Your task to perform on an android device: open app "Booking.com: Hotels and more" Image 0: 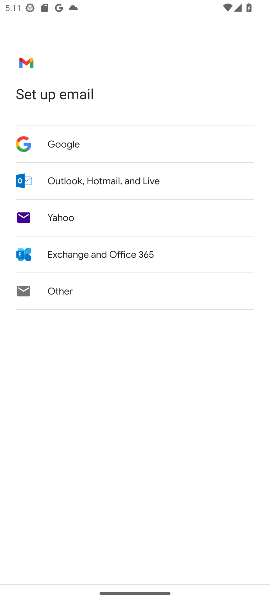
Step 0: press home button
Your task to perform on an android device: open app "Booking.com: Hotels and more" Image 1: 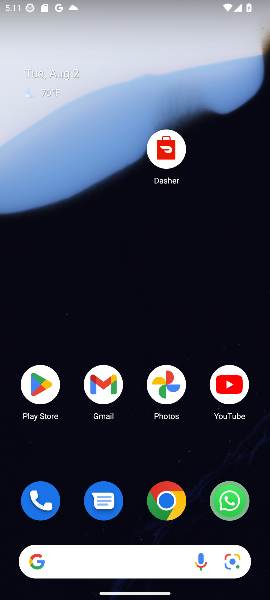
Step 1: click (36, 384)
Your task to perform on an android device: open app "Booking.com: Hotels and more" Image 2: 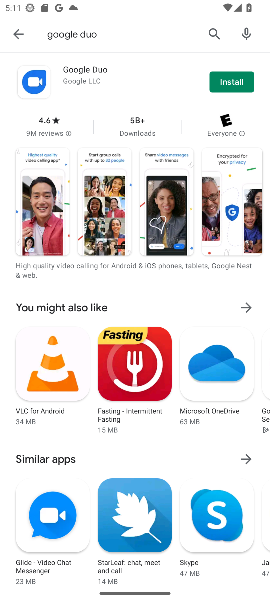
Step 2: click (214, 36)
Your task to perform on an android device: open app "Booking.com: Hotels and more" Image 3: 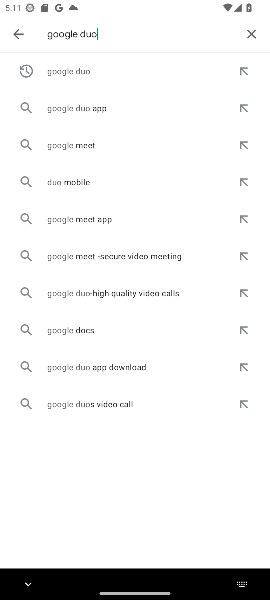
Step 3: click (247, 36)
Your task to perform on an android device: open app "Booking.com: Hotels and more" Image 4: 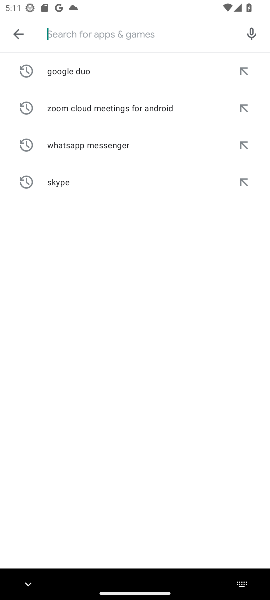
Step 4: type "Booking.com: Hotels and more"
Your task to perform on an android device: open app "Booking.com: Hotels and more" Image 5: 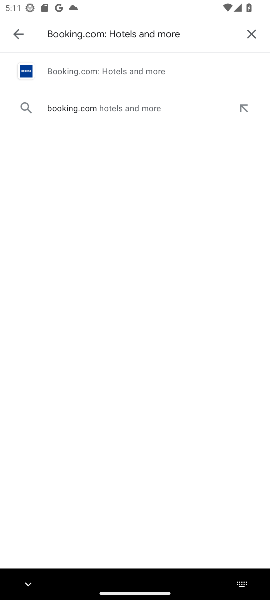
Step 5: click (69, 74)
Your task to perform on an android device: open app "Booking.com: Hotels and more" Image 6: 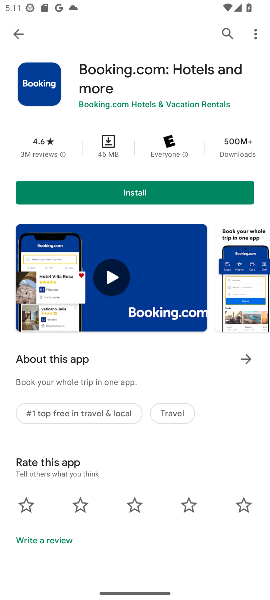
Step 6: task complete